Your task to perform on an android device: Is it going to rain tomorrow? Image 0: 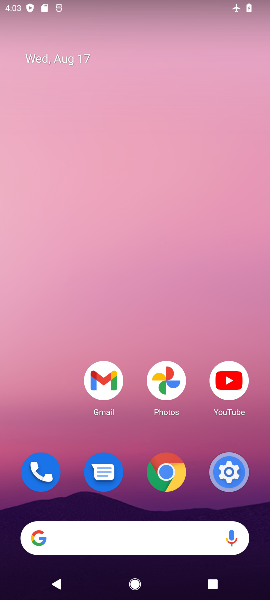
Step 0: drag from (136, 394) to (128, 131)
Your task to perform on an android device: Is it going to rain tomorrow? Image 1: 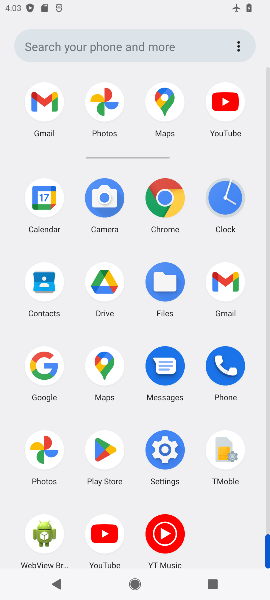
Step 1: click (56, 374)
Your task to perform on an android device: Is it going to rain tomorrow? Image 2: 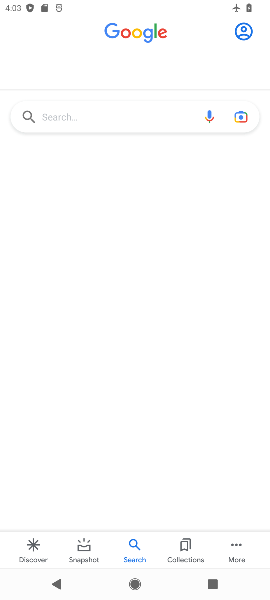
Step 2: click (131, 115)
Your task to perform on an android device: Is it going to rain tomorrow? Image 3: 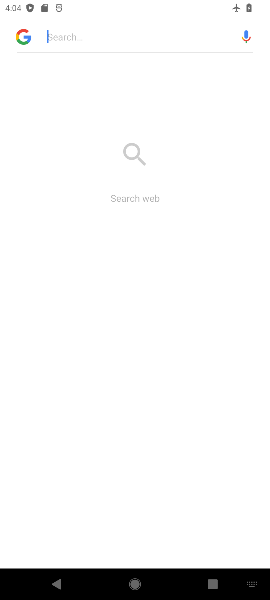
Step 3: type "weather"
Your task to perform on an android device: Is it going to rain tomorrow? Image 4: 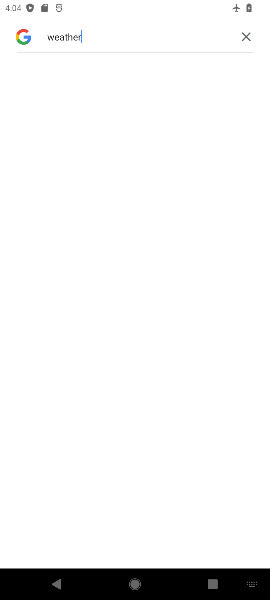
Step 4: task complete